Your task to perform on an android device: Open calendar and show me the fourth week of next month Image 0: 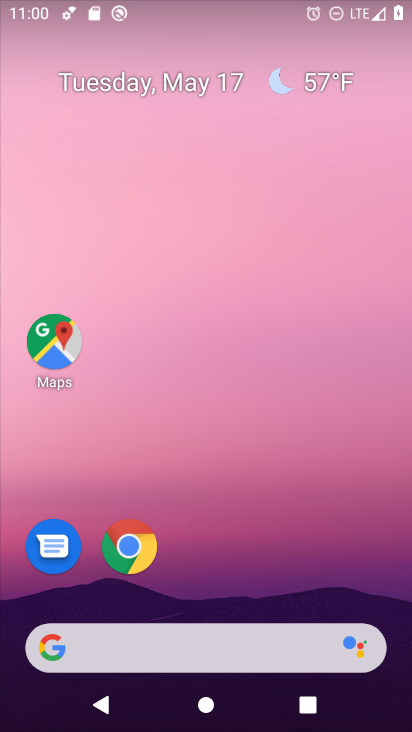
Step 0: drag from (294, 586) to (315, 22)
Your task to perform on an android device: Open calendar and show me the fourth week of next month Image 1: 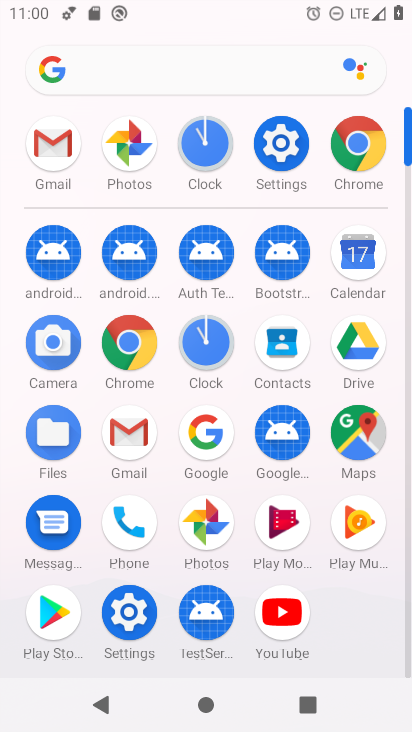
Step 1: click (351, 264)
Your task to perform on an android device: Open calendar and show me the fourth week of next month Image 2: 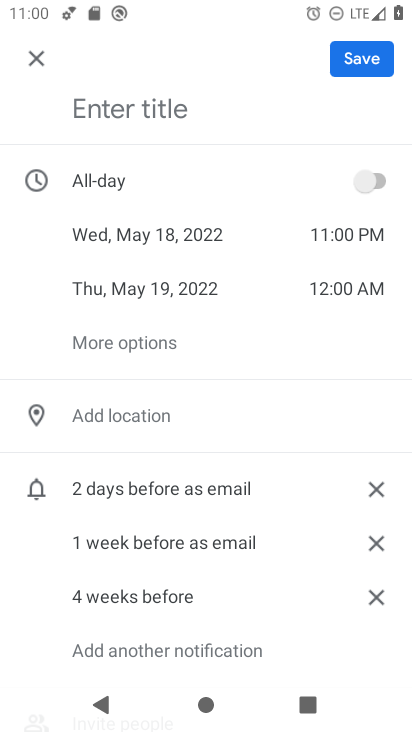
Step 2: click (27, 60)
Your task to perform on an android device: Open calendar and show me the fourth week of next month Image 3: 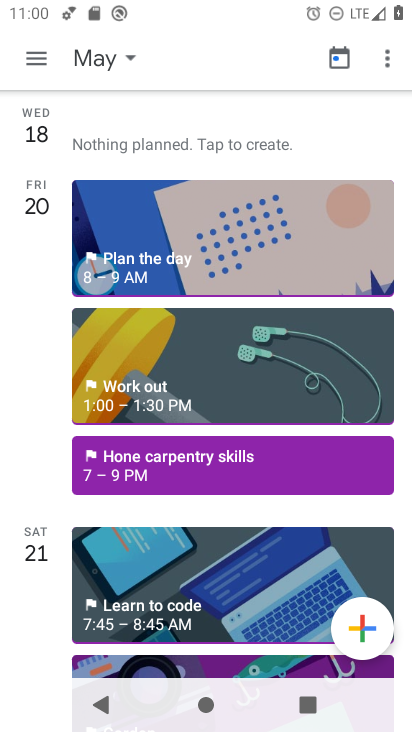
Step 3: click (124, 62)
Your task to perform on an android device: Open calendar and show me the fourth week of next month Image 4: 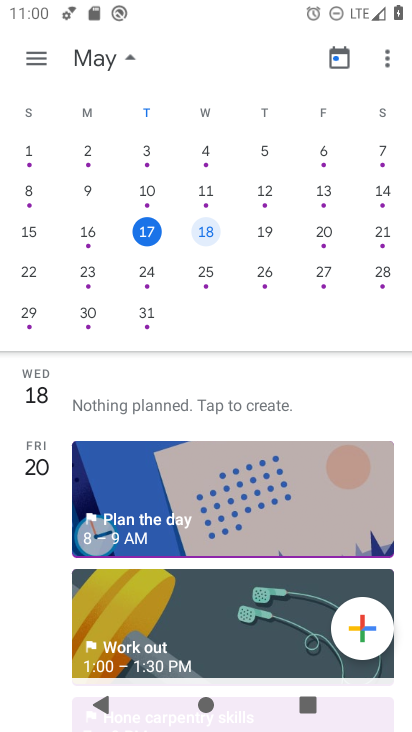
Step 4: drag from (376, 203) to (43, 190)
Your task to perform on an android device: Open calendar and show me the fourth week of next month Image 5: 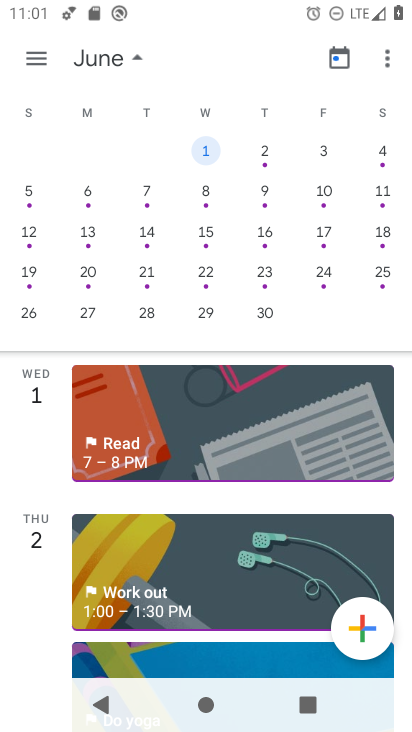
Step 5: click (40, 60)
Your task to perform on an android device: Open calendar and show me the fourth week of next month Image 6: 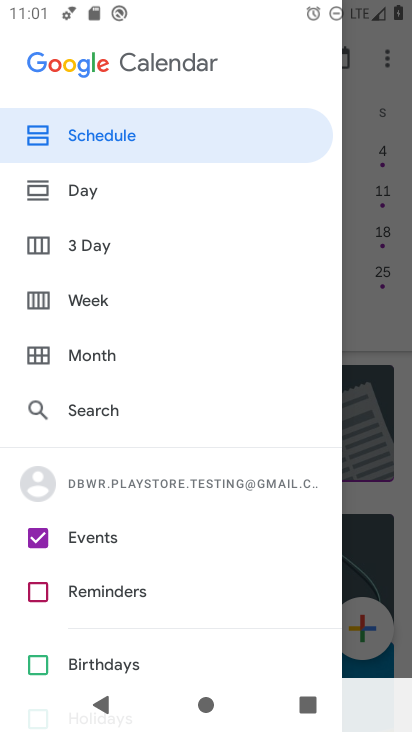
Step 6: click (44, 310)
Your task to perform on an android device: Open calendar and show me the fourth week of next month Image 7: 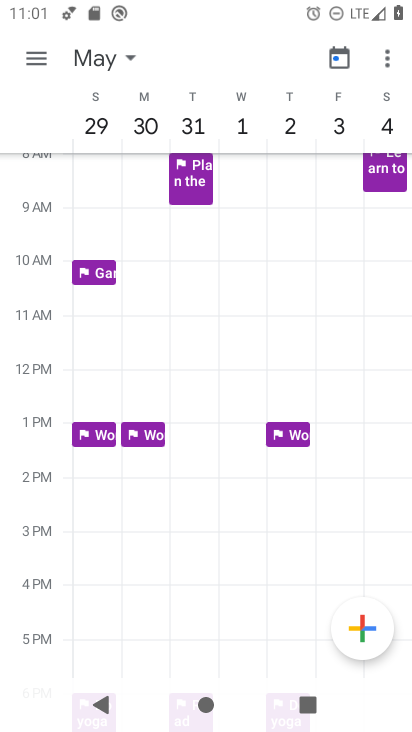
Step 7: task complete